Your task to perform on an android device: How much does a 2 bedroom apartment rent for in San Francisco? Image 0: 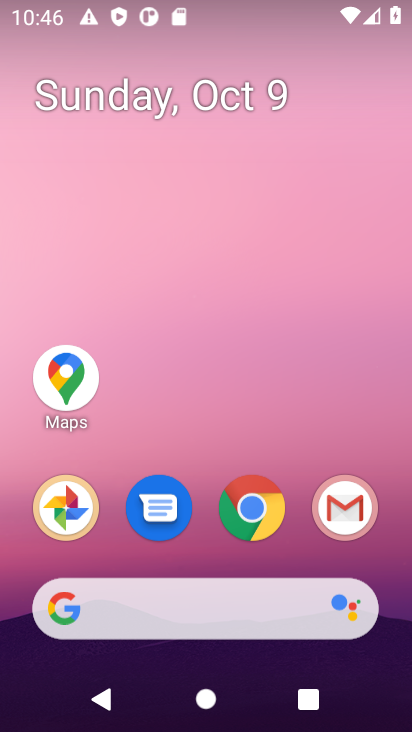
Step 0: press home button
Your task to perform on an android device: How much does a 2 bedroom apartment rent for in San Francisco? Image 1: 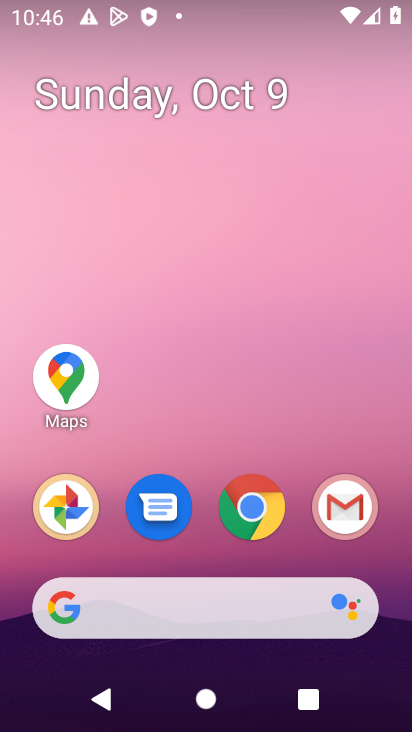
Step 1: click (252, 615)
Your task to perform on an android device: How much does a 2 bedroom apartment rent for in San Francisco? Image 2: 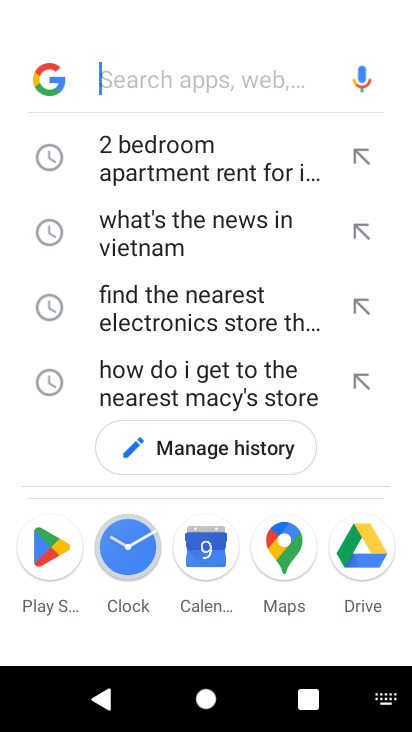
Step 2: type "2 bedroom apartment rent for in San Francisco"
Your task to perform on an android device: How much does a 2 bedroom apartment rent for in San Francisco? Image 3: 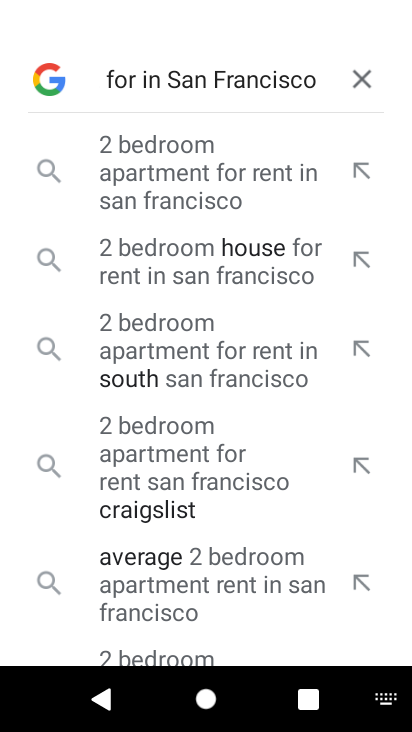
Step 3: press enter
Your task to perform on an android device: How much does a 2 bedroom apartment rent for in San Francisco? Image 4: 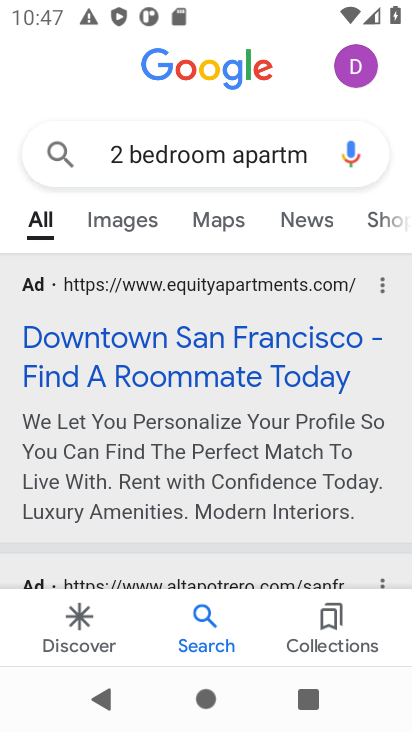
Step 4: drag from (236, 495) to (242, 263)
Your task to perform on an android device: How much does a 2 bedroom apartment rent for in San Francisco? Image 5: 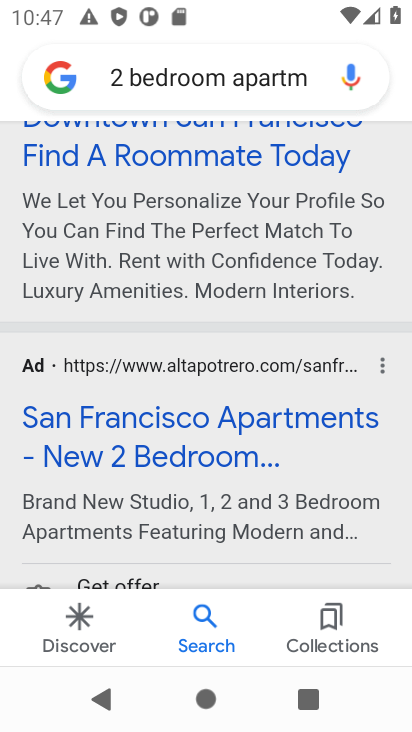
Step 5: click (215, 436)
Your task to perform on an android device: How much does a 2 bedroom apartment rent for in San Francisco? Image 6: 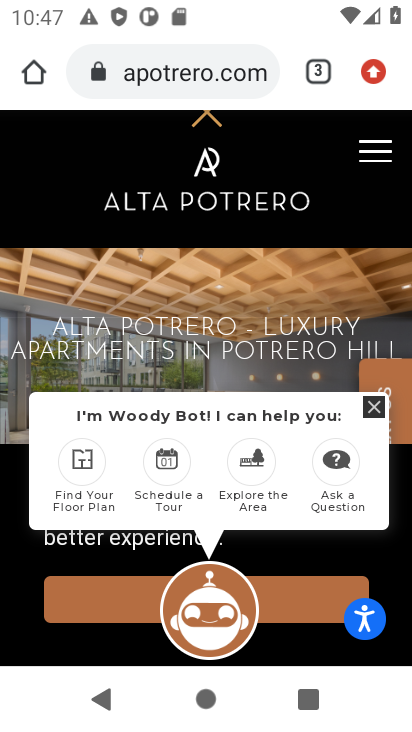
Step 6: click (252, 616)
Your task to perform on an android device: How much does a 2 bedroom apartment rent for in San Francisco? Image 7: 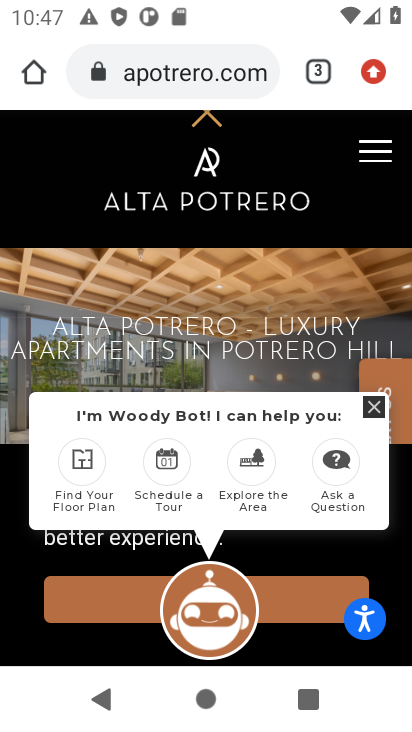
Step 7: click (305, 605)
Your task to perform on an android device: How much does a 2 bedroom apartment rent for in San Francisco? Image 8: 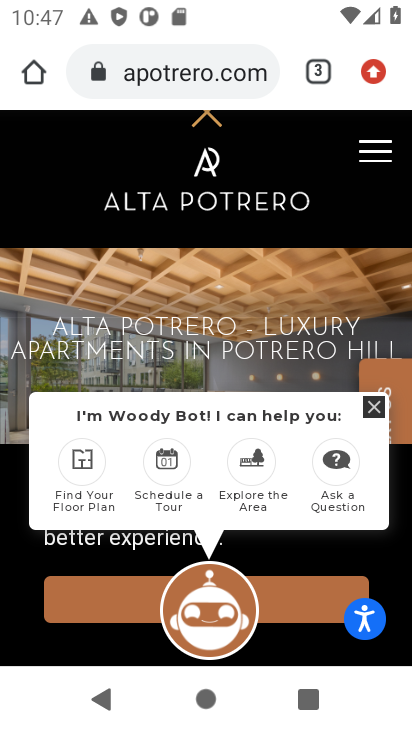
Step 8: click (375, 412)
Your task to perform on an android device: How much does a 2 bedroom apartment rent for in San Francisco? Image 9: 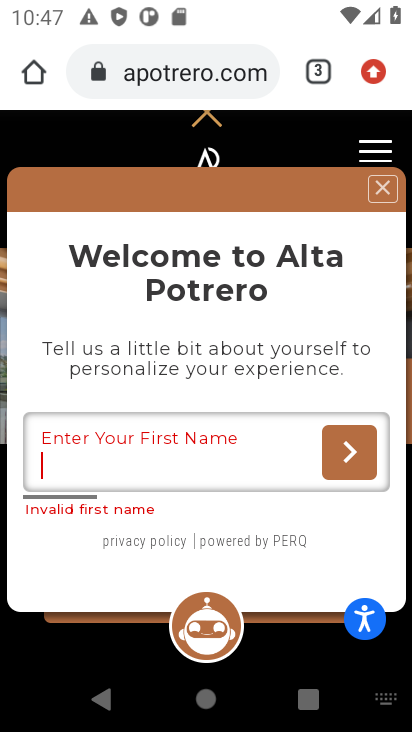
Step 9: click (384, 176)
Your task to perform on an android device: How much does a 2 bedroom apartment rent for in San Francisco? Image 10: 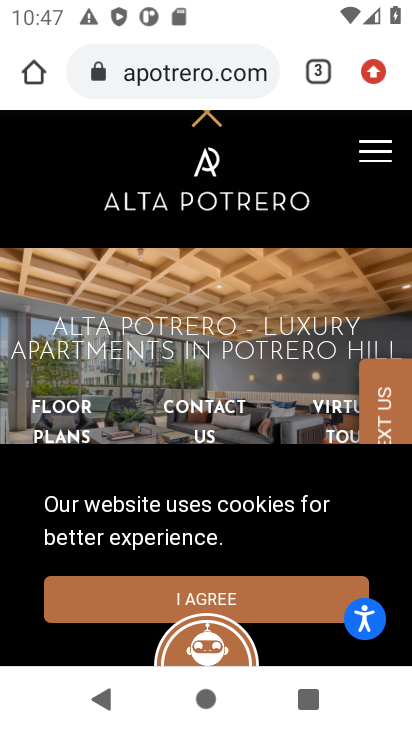
Step 10: click (287, 596)
Your task to perform on an android device: How much does a 2 bedroom apartment rent for in San Francisco? Image 11: 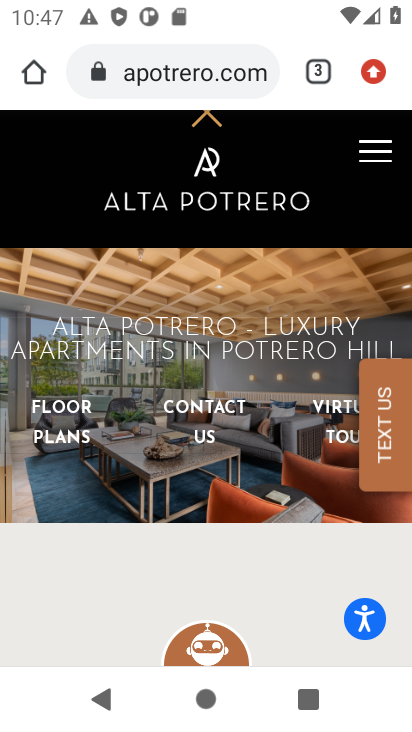
Step 11: task complete